Your task to perform on an android device: Go to ESPN.com Image 0: 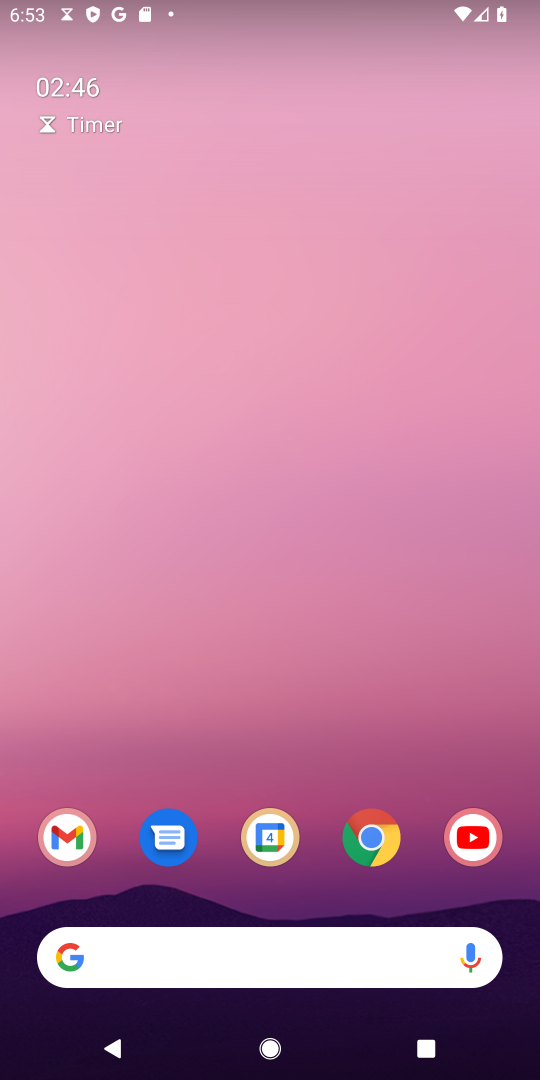
Step 0: press home button
Your task to perform on an android device: Go to ESPN.com Image 1: 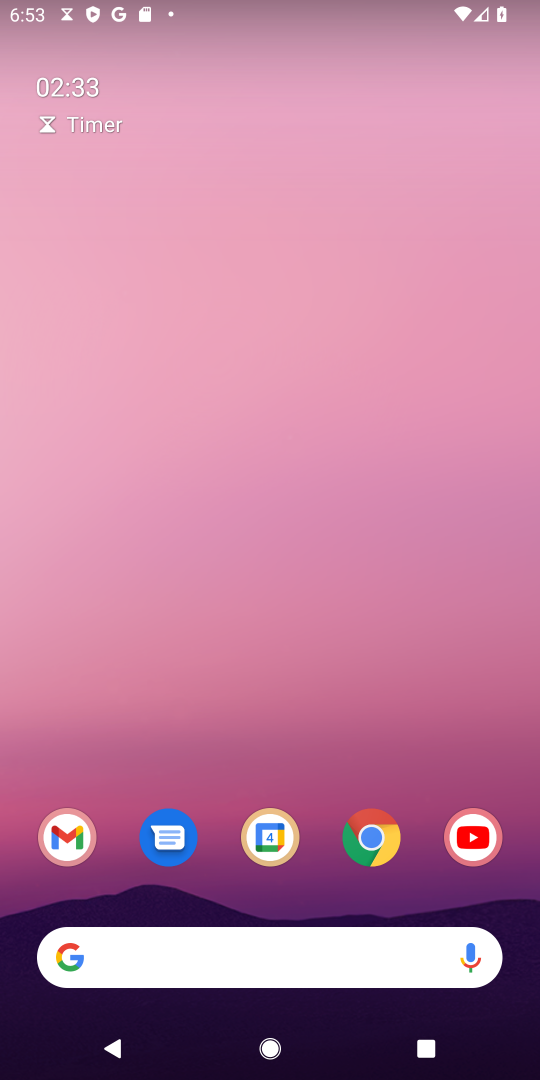
Step 1: click (355, 826)
Your task to perform on an android device: Go to ESPN.com Image 2: 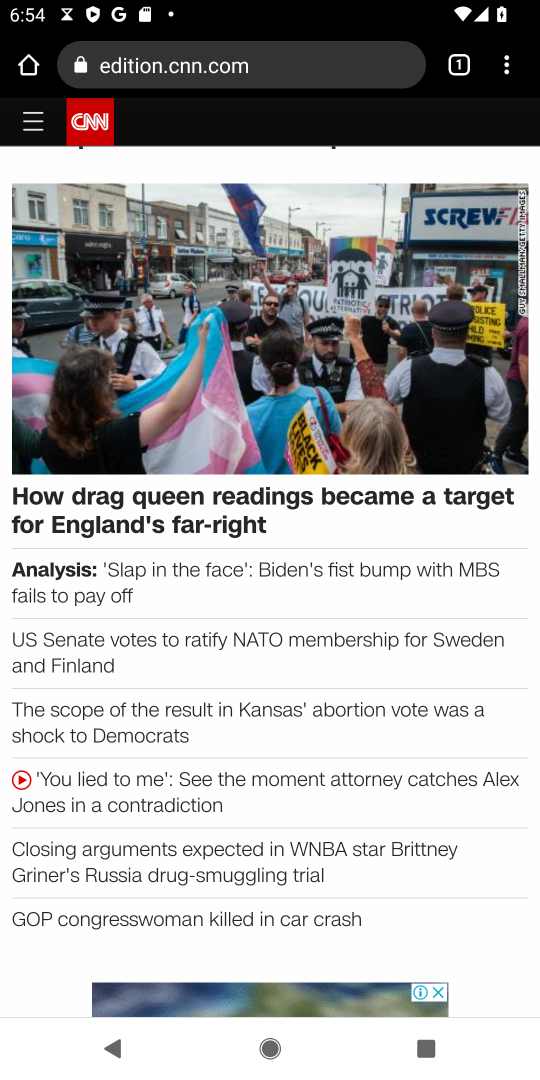
Step 2: click (455, 57)
Your task to perform on an android device: Go to ESPN.com Image 3: 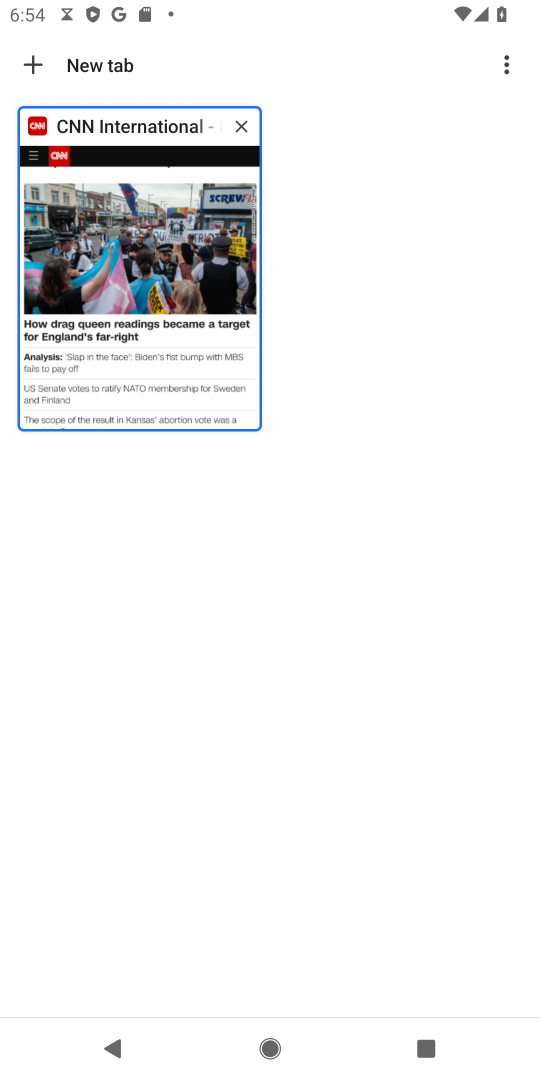
Step 3: click (31, 68)
Your task to perform on an android device: Go to ESPN.com Image 4: 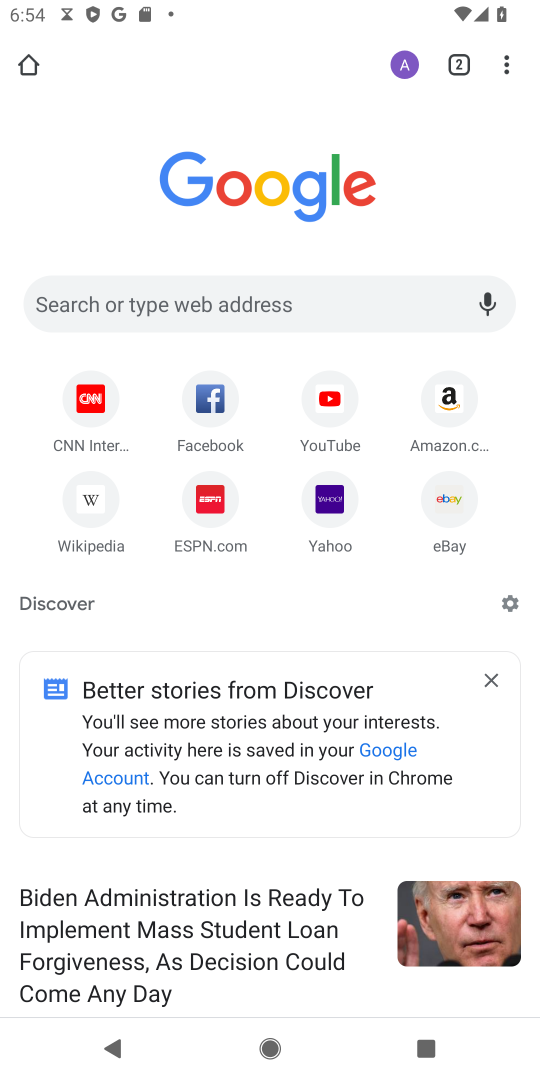
Step 4: click (206, 502)
Your task to perform on an android device: Go to ESPN.com Image 5: 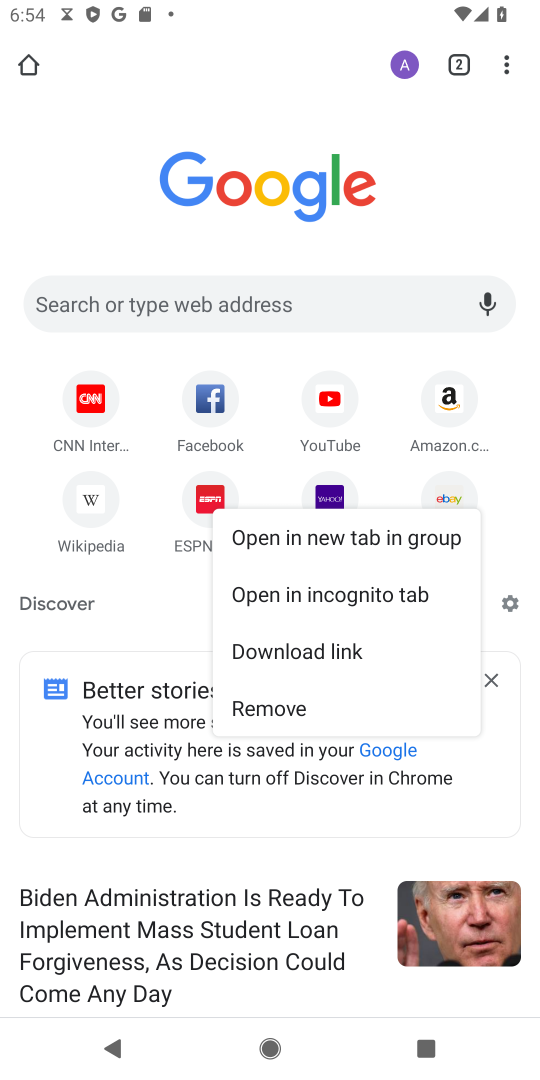
Step 5: click (208, 491)
Your task to perform on an android device: Go to ESPN.com Image 6: 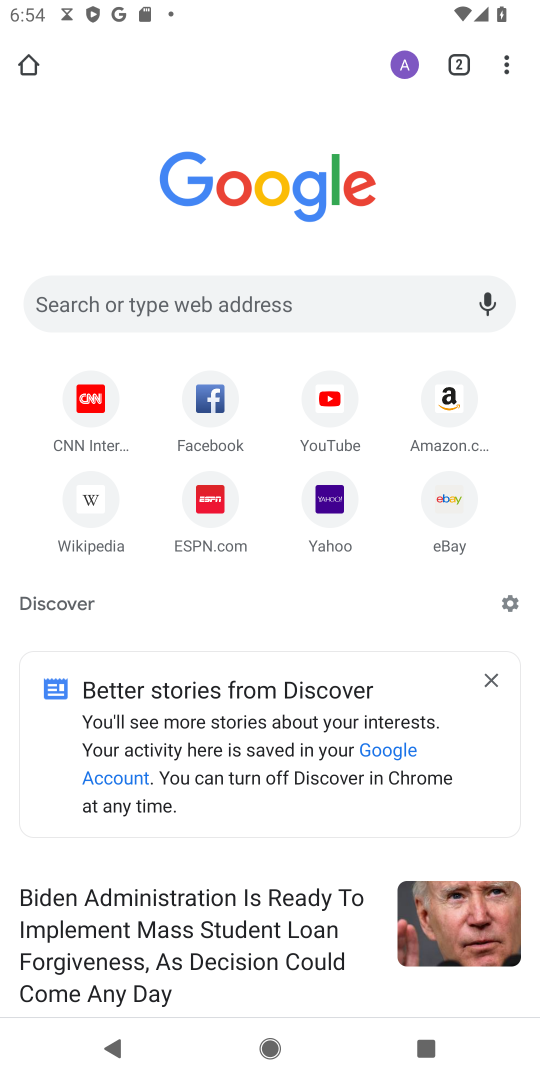
Step 6: click (208, 497)
Your task to perform on an android device: Go to ESPN.com Image 7: 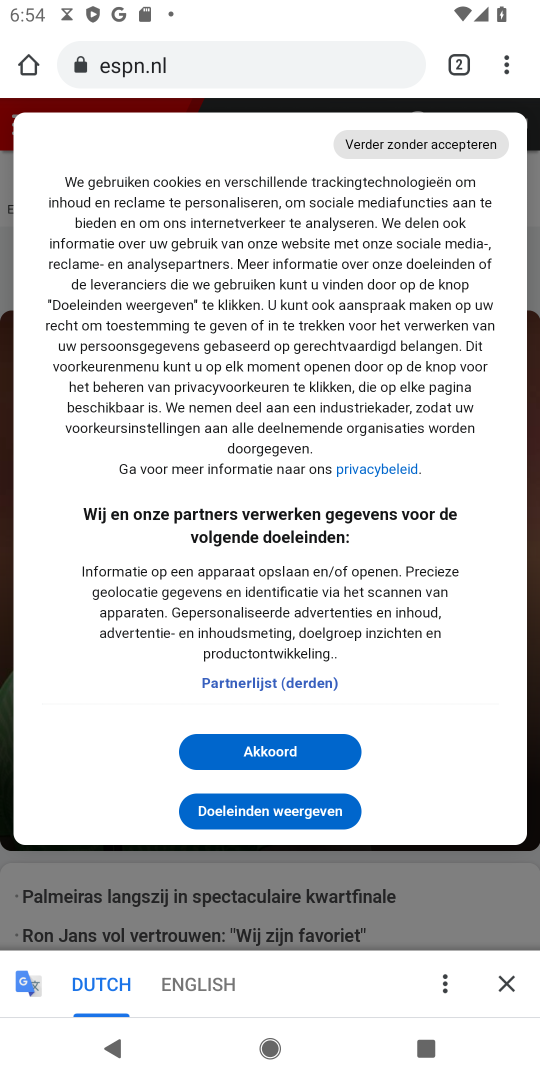
Step 7: click (262, 740)
Your task to perform on an android device: Go to ESPN.com Image 8: 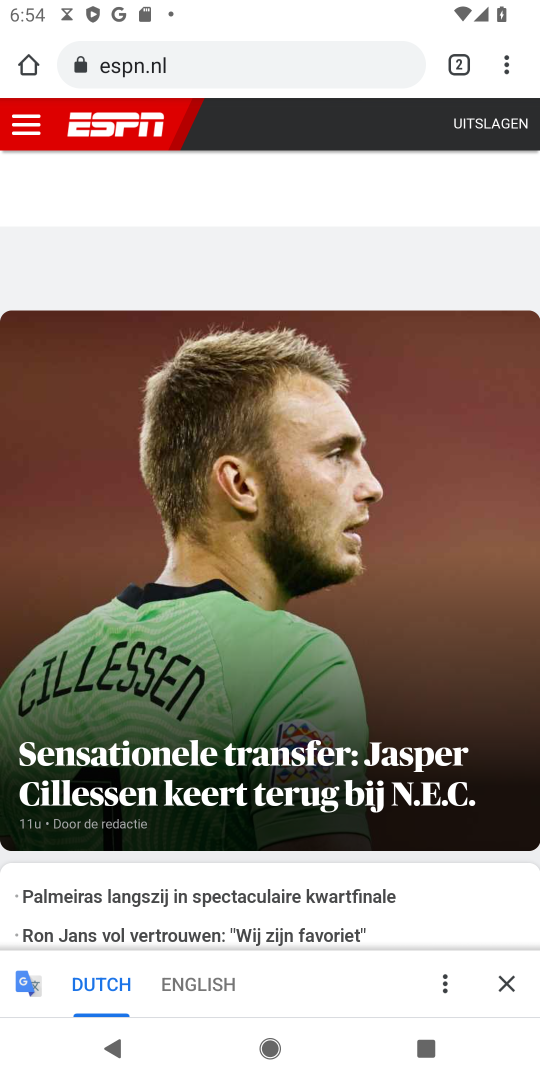
Step 8: task complete